Your task to perform on an android device: turn on sleep mode Image 0: 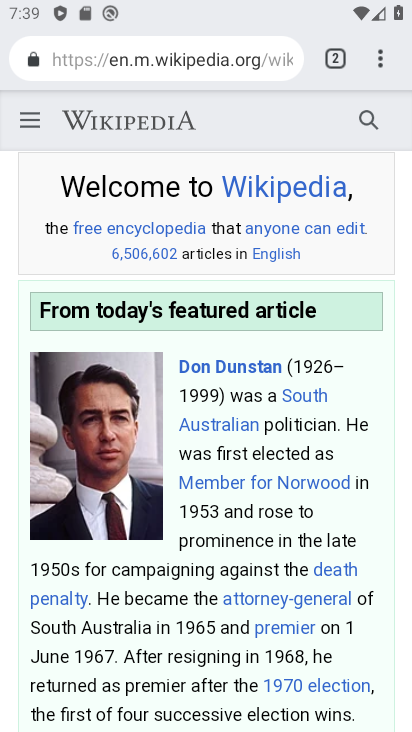
Step 0: press home button
Your task to perform on an android device: turn on sleep mode Image 1: 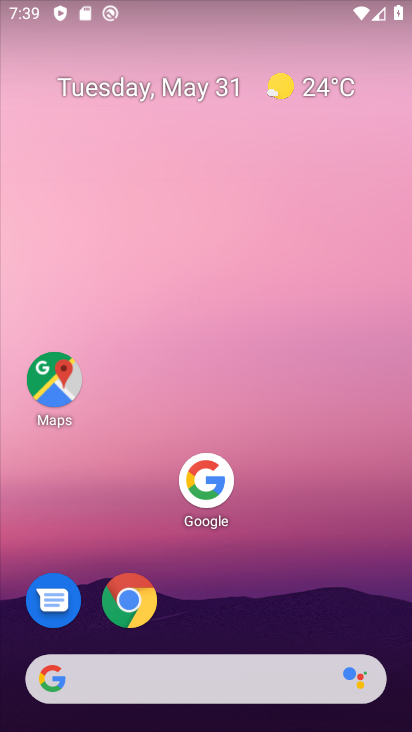
Step 1: drag from (174, 677) to (366, 101)
Your task to perform on an android device: turn on sleep mode Image 2: 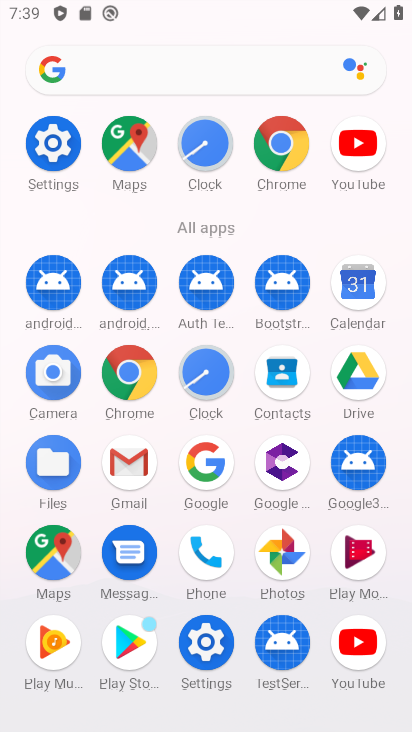
Step 2: click (58, 148)
Your task to perform on an android device: turn on sleep mode Image 3: 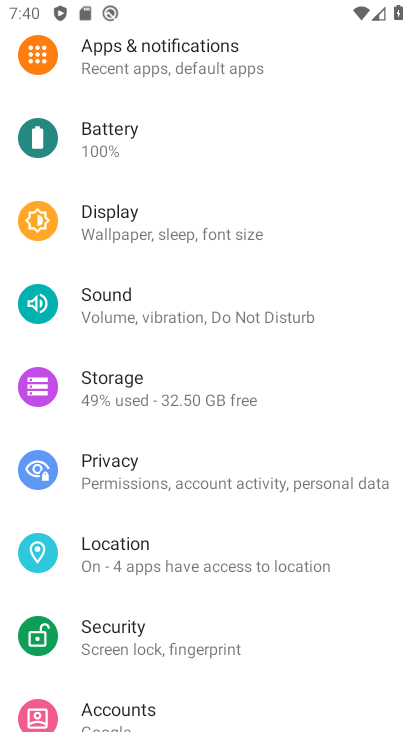
Step 3: click (162, 238)
Your task to perform on an android device: turn on sleep mode Image 4: 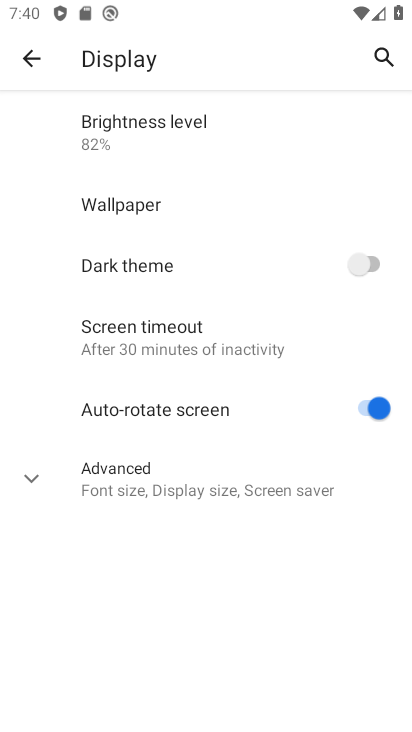
Step 4: task complete